Your task to perform on an android device: toggle data saver in the chrome app Image 0: 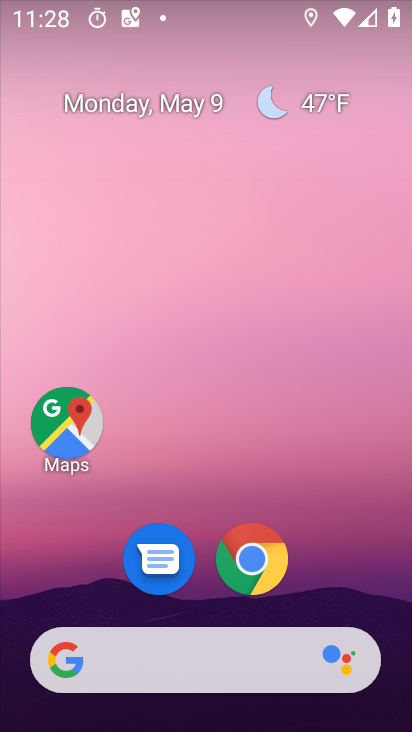
Step 0: click (246, 554)
Your task to perform on an android device: toggle data saver in the chrome app Image 1: 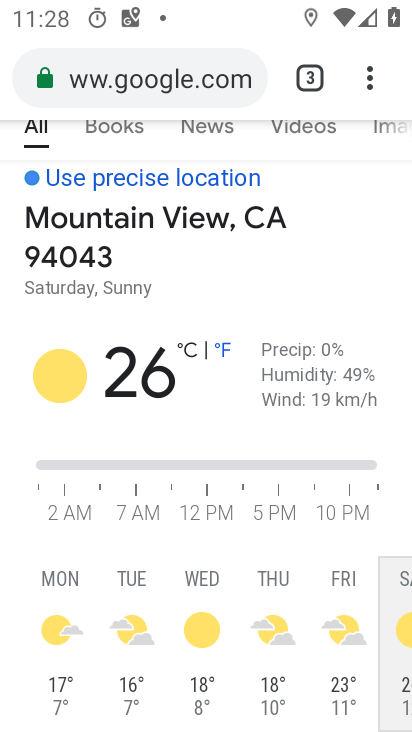
Step 1: drag from (351, 81) to (142, 625)
Your task to perform on an android device: toggle data saver in the chrome app Image 2: 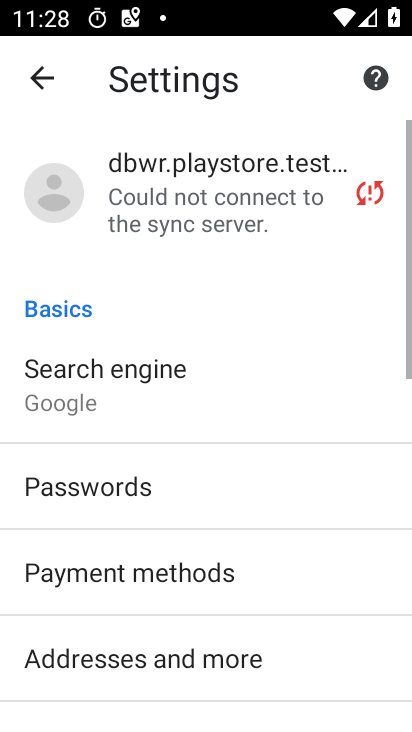
Step 2: drag from (212, 618) to (236, 217)
Your task to perform on an android device: toggle data saver in the chrome app Image 3: 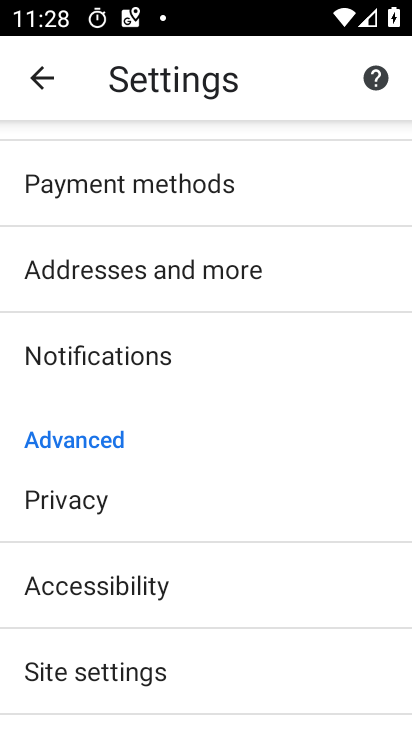
Step 3: drag from (225, 618) to (203, 448)
Your task to perform on an android device: toggle data saver in the chrome app Image 4: 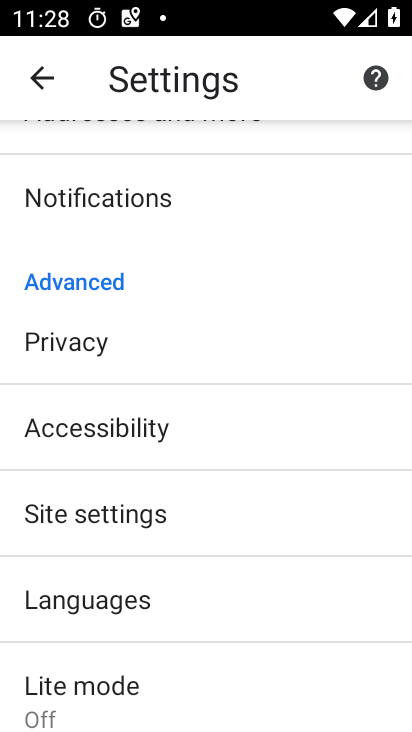
Step 4: click (135, 684)
Your task to perform on an android device: toggle data saver in the chrome app Image 5: 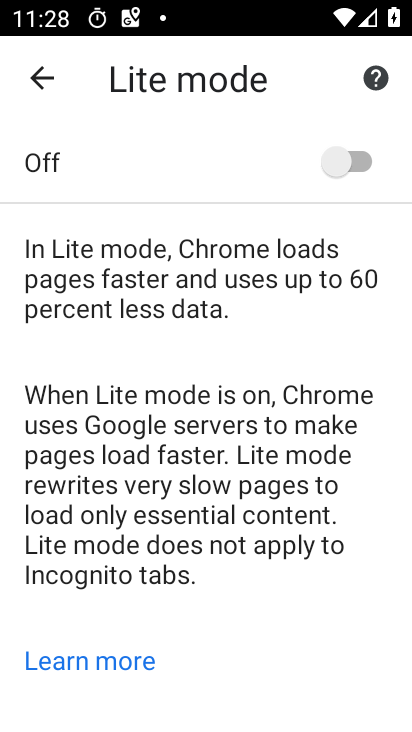
Step 5: click (338, 161)
Your task to perform on an android device: toggle data saver in the chrome app Image 6: 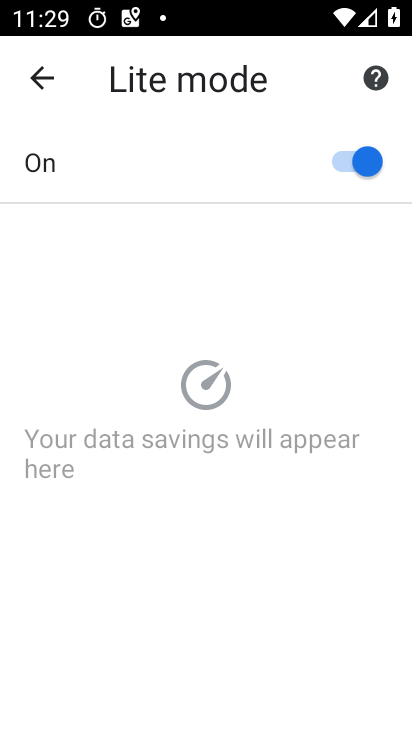
Step 6: task complete